Your task to perform on an android device: What is the recent news? Image 0: 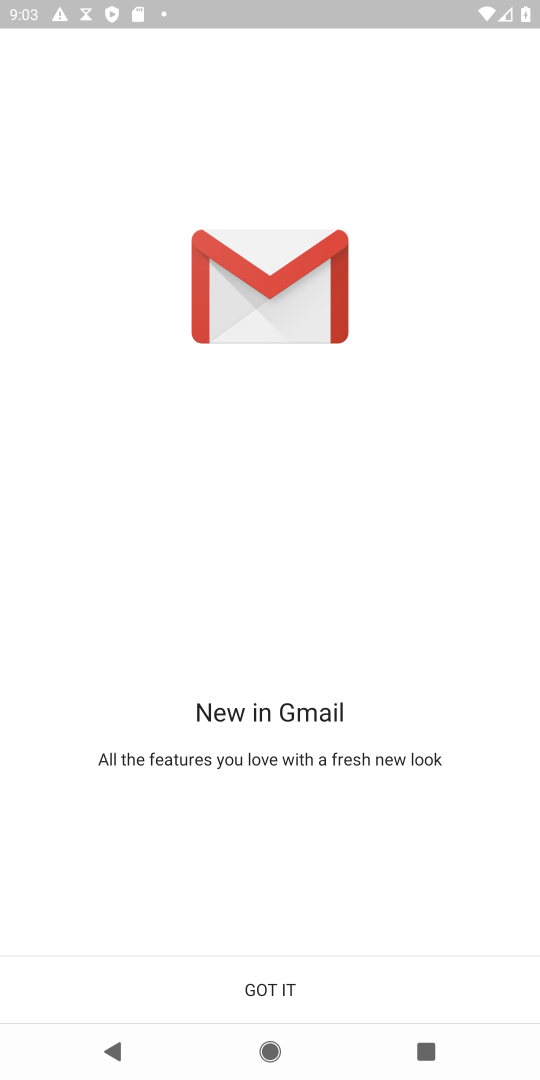
Step 0: press home button
Your task to perform on an android device: What is the recent news? Image 1: 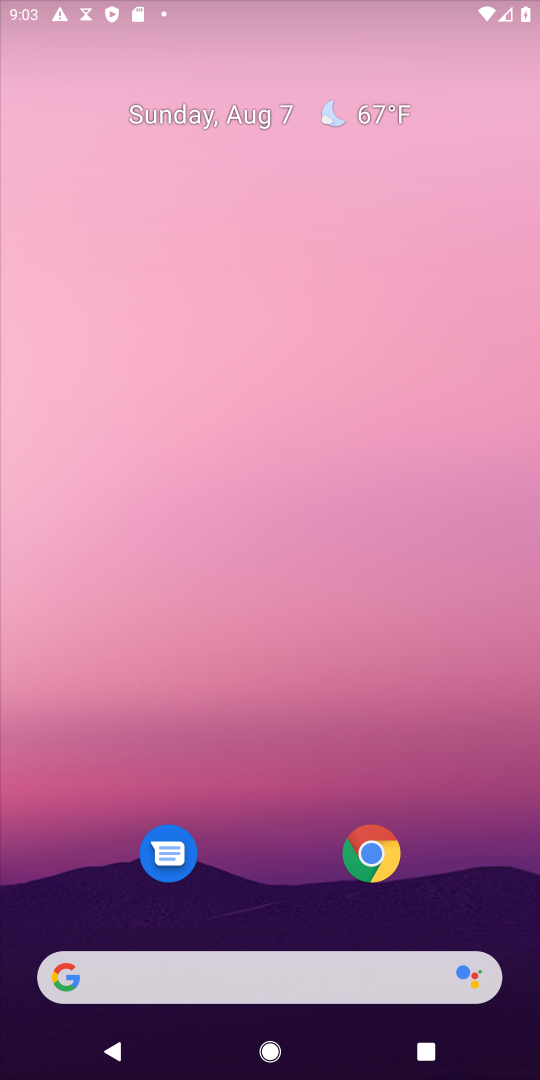
Step 1: drag from (124, 998) to (231, 163)
Your task to perform on an android device: What is the recent news? Image 2: 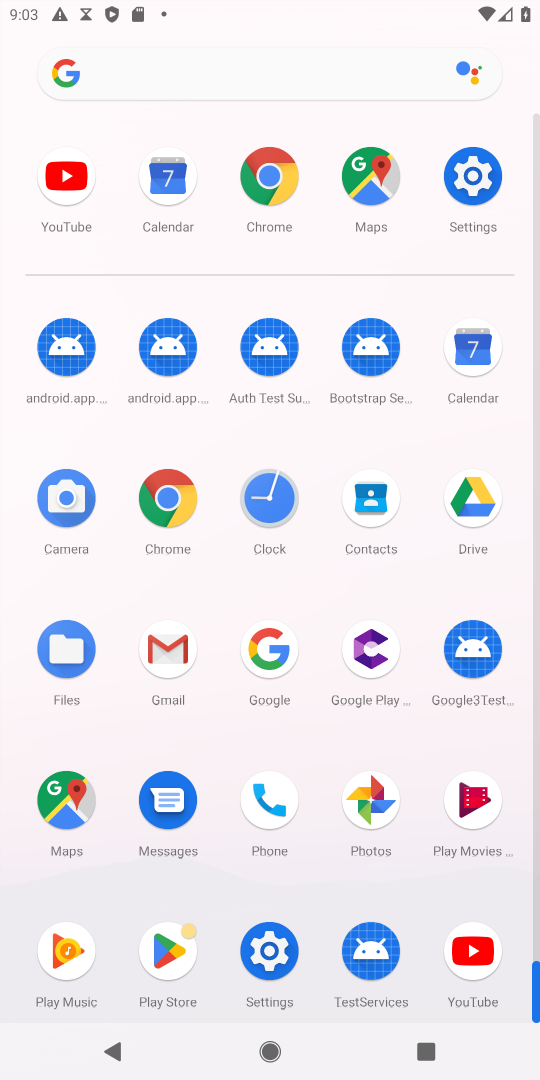
Step 2: click (272, 170)
Your task to perform on an android device: What is the recent news? Image 3: 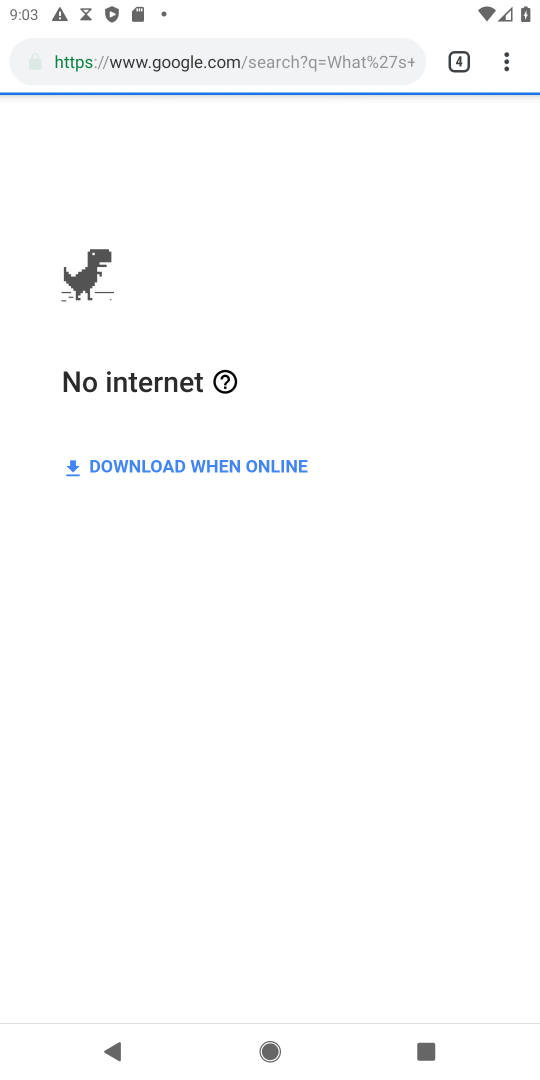
Step 3: click (527, 55)
Your task to perform on an android device: What is the recent news? Image 4: 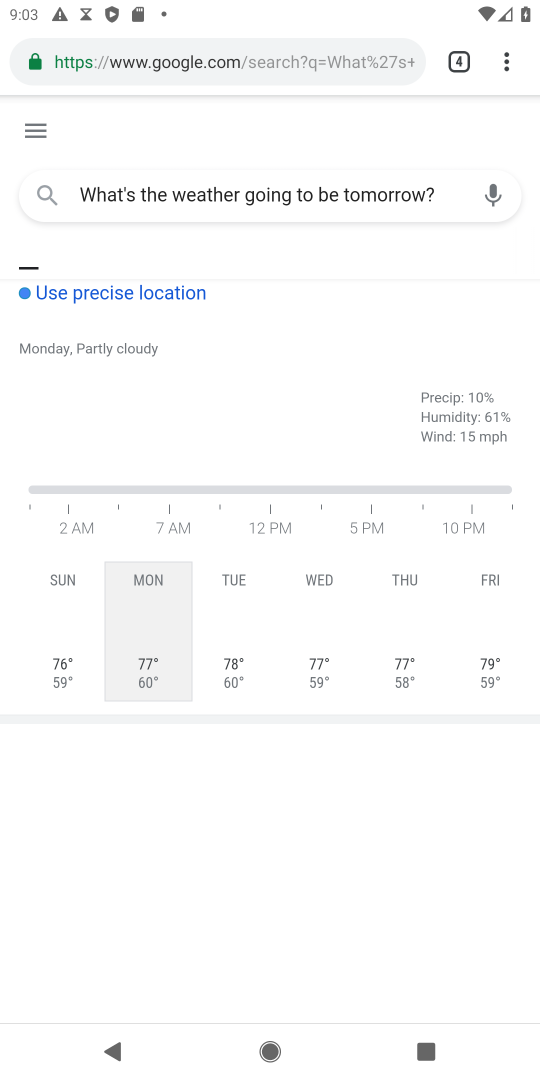
Step 4: click (498, 64)
Your task to perform on an android device: What is the recent news? Image 5: 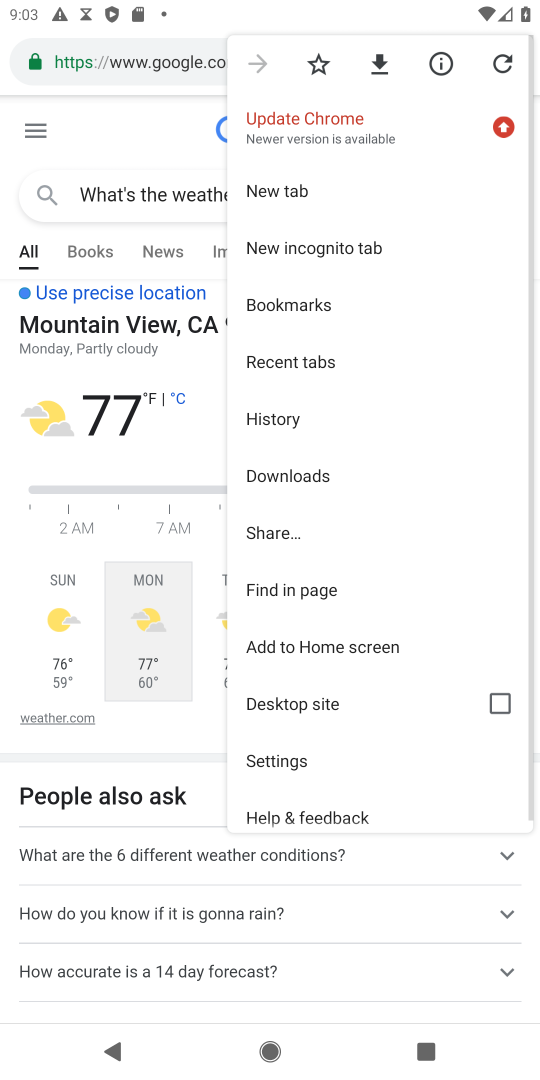
Step 5: click (291, 175)
Your task to perform on an android device: What is the recent news? Image 6: 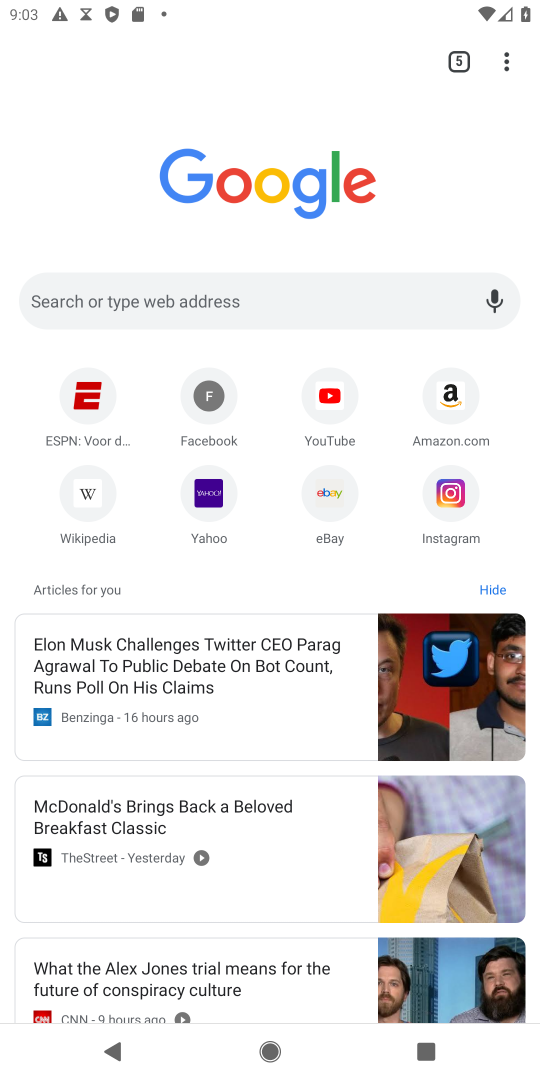
Step 6: click (290, 296)
Your task to perform on an android device: What is the recent news? Image 7: 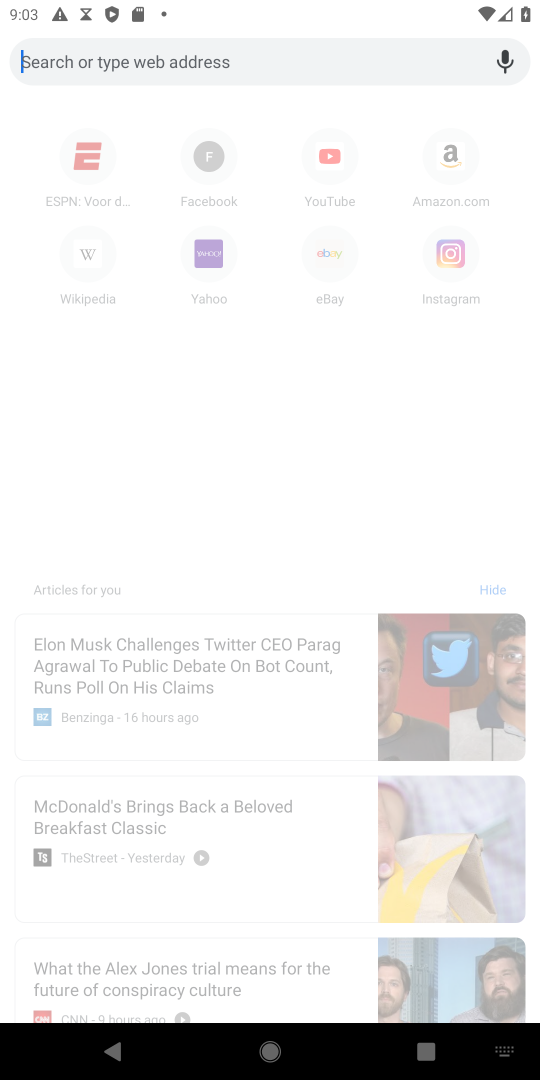
Step 7: type "What is the recent news "
Your task to perform on an android device: What is the recent news? Image 8: 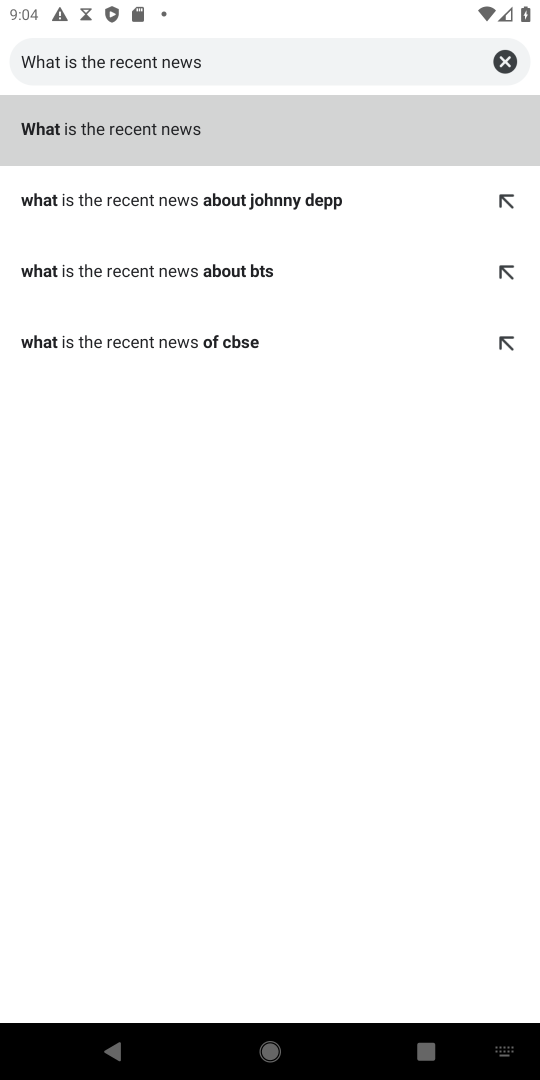
Step 8: click (199, 125)
Your task to perform on an android device: What is the recent news? Image 9: 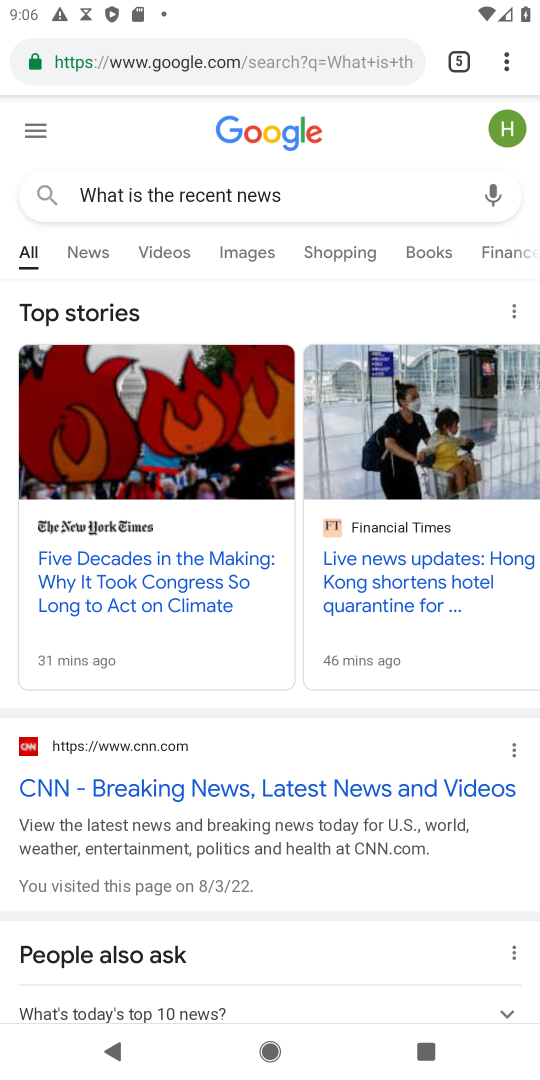
Step 9: task complete